Your task to perform on an android device: Turn on the flashlight Image 0: 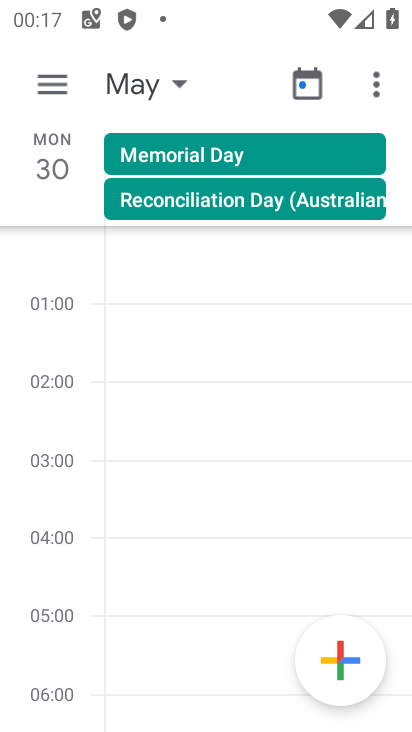
Step 0: press home button
Your task to perform on an android device: Turn on the flashlight Image 1: 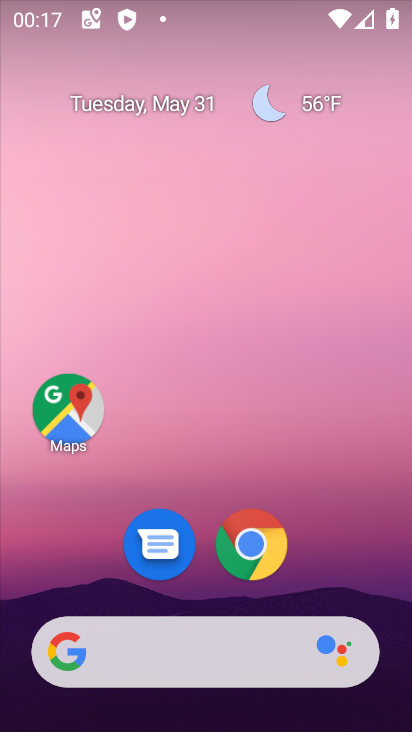
Step 1: drag from (354, 527) to (248, 8)
Your task to perform on an android device: Turn on the flashlight Image 2: 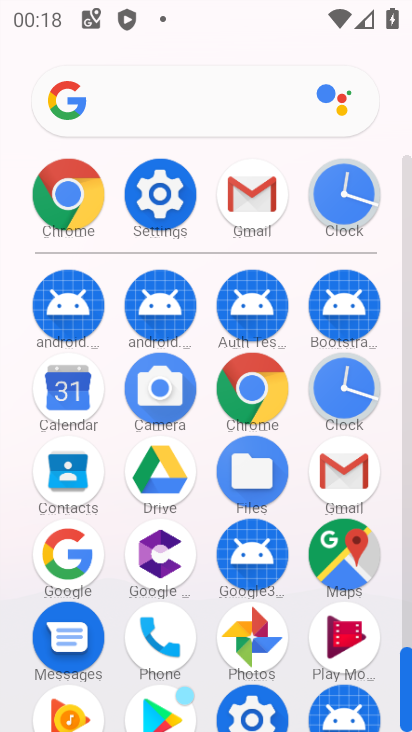
Step 2: click (162, 198)
Your task to perform on an android device: Turn on the flashlight Image 3: 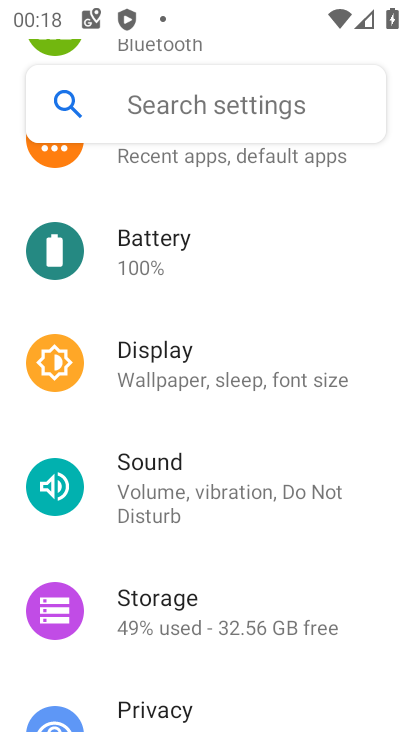
Step 3: drag from (256, 265) to (216, 621)
Your task to perform on an android device: Turn on the flashlight Image 4: 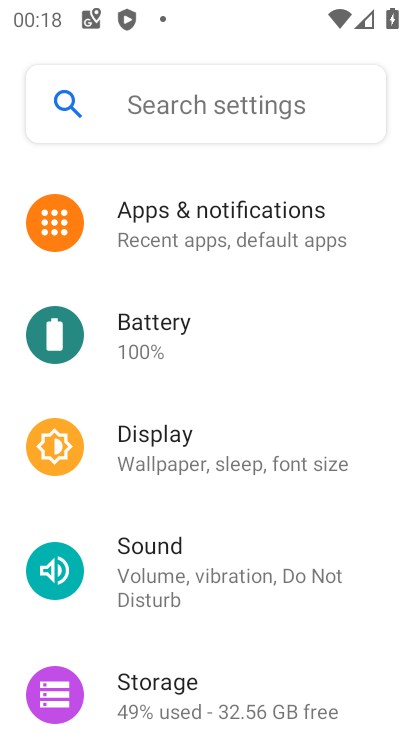
Step 4: click (203, 453)
Your task to perform on an android device: Turn on the flashlight Image 5: 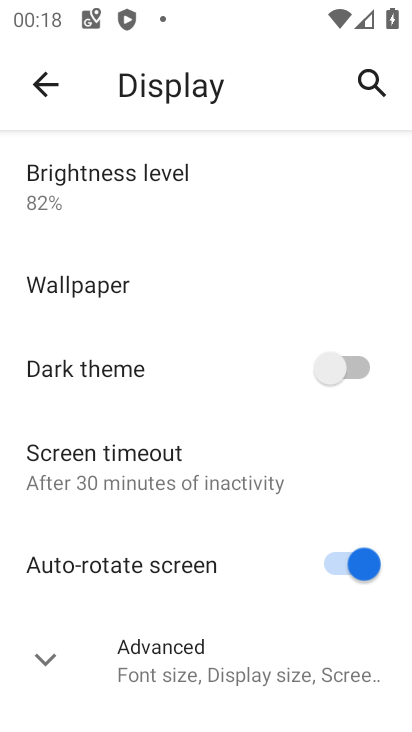
Step 5: task complete